Your task to perform on an android device: Open calendar and show me the third week of next month Image 0: 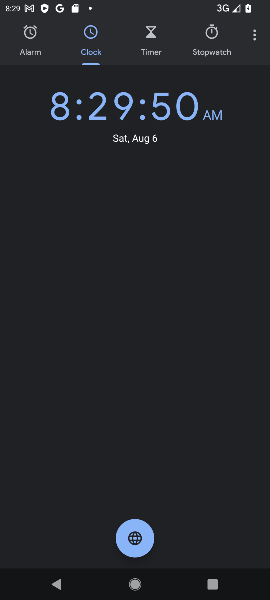
Step 0: press home button
Your task to perform on an android device: Open calendar and show me the third week of next month Image 1: 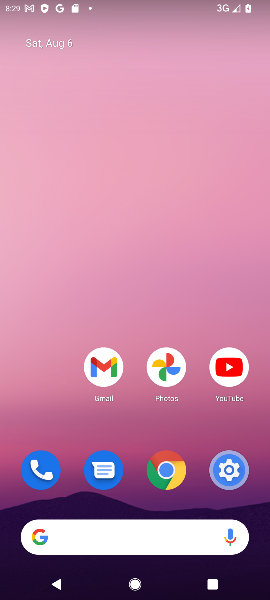
Step 1: drag from (158, 540) to (136, 137)
Your task to perform on an android device: Open calendar and show me the third week of next month Image 2: 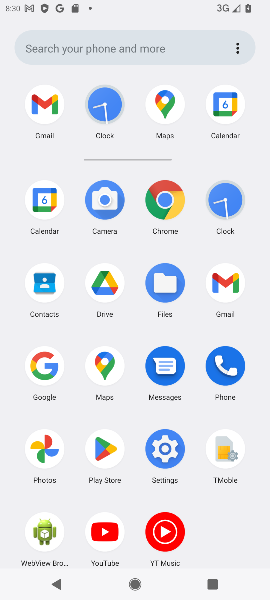
Step 2: click (51, 203)
Your task to perform on an android device: Open calendar and show me the third week of next month Image 3: 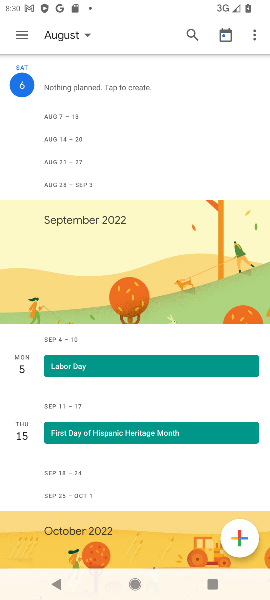
Step 3: click (62, 33)
Your task to perform on an android device: Open calendar and show me the third week of next month Image 4: 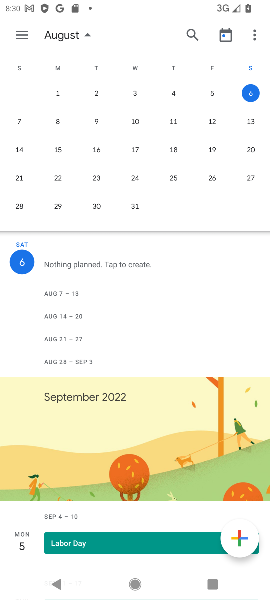
Step 4: click (59, 33)
Your task to perform on an android device: Open calendar and show me the third week of next month Image 5: 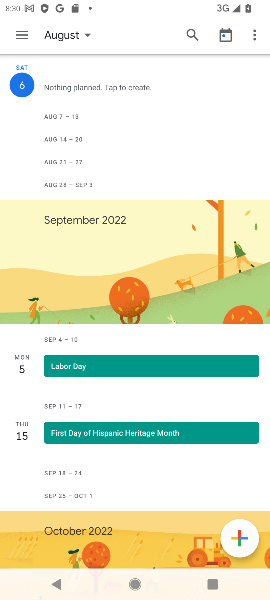
Step 5: click (74, 32)
Your task to perform on an android device: Open calendar and show me the third week of next month Image 6: 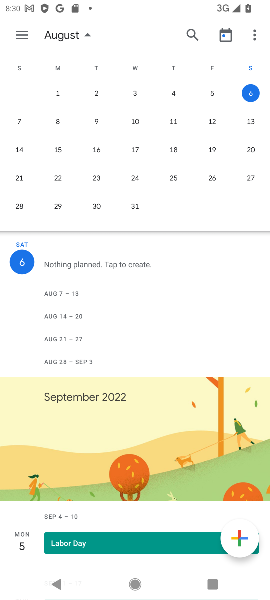
Step 6: drag from (167, 158) to (8, 178)
Your task to perform on an android device: Open calendar and show me the third week of next month Image 7: 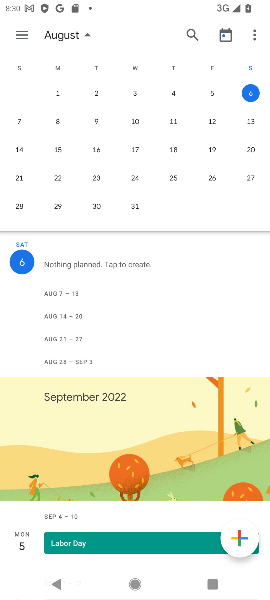
Step 7: drag from (242, 172) to (22, 176)
Your task to perform on an android device: Open calendar and show me the third week of next month Image 8: 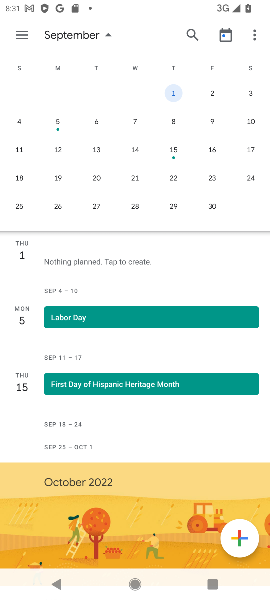
Step 8: click (25, 179)
Your task to perform on an android device: Open calendar and show me the third week of next month Image 9: 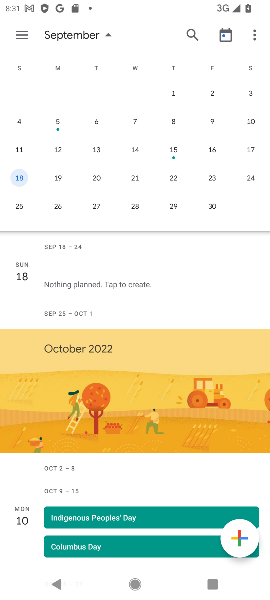
Step 9: task complete